Your task to perform on an android device: find photos in the google photos app Image 0: 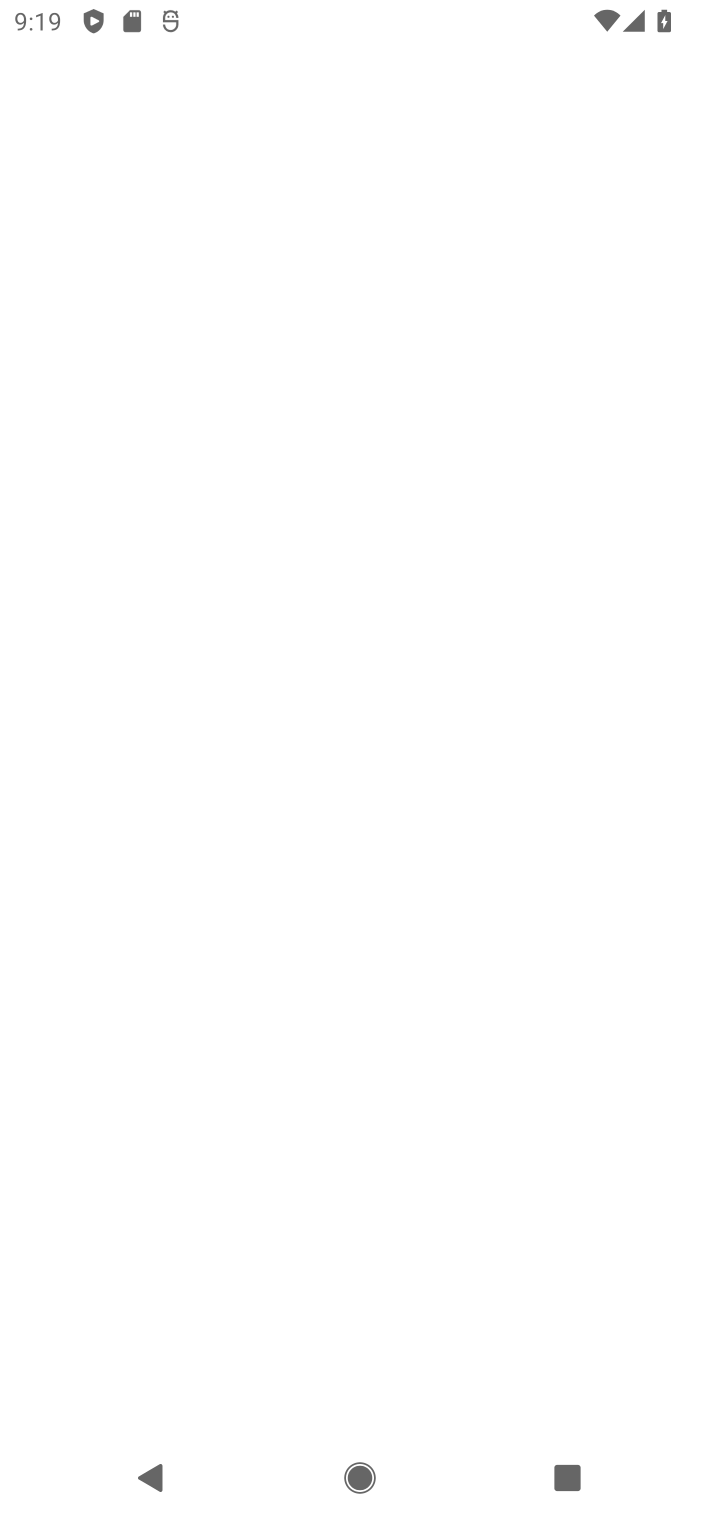
Step 0: press home button
Your task to perform on an android device: find photos in the google photos app Image 1: 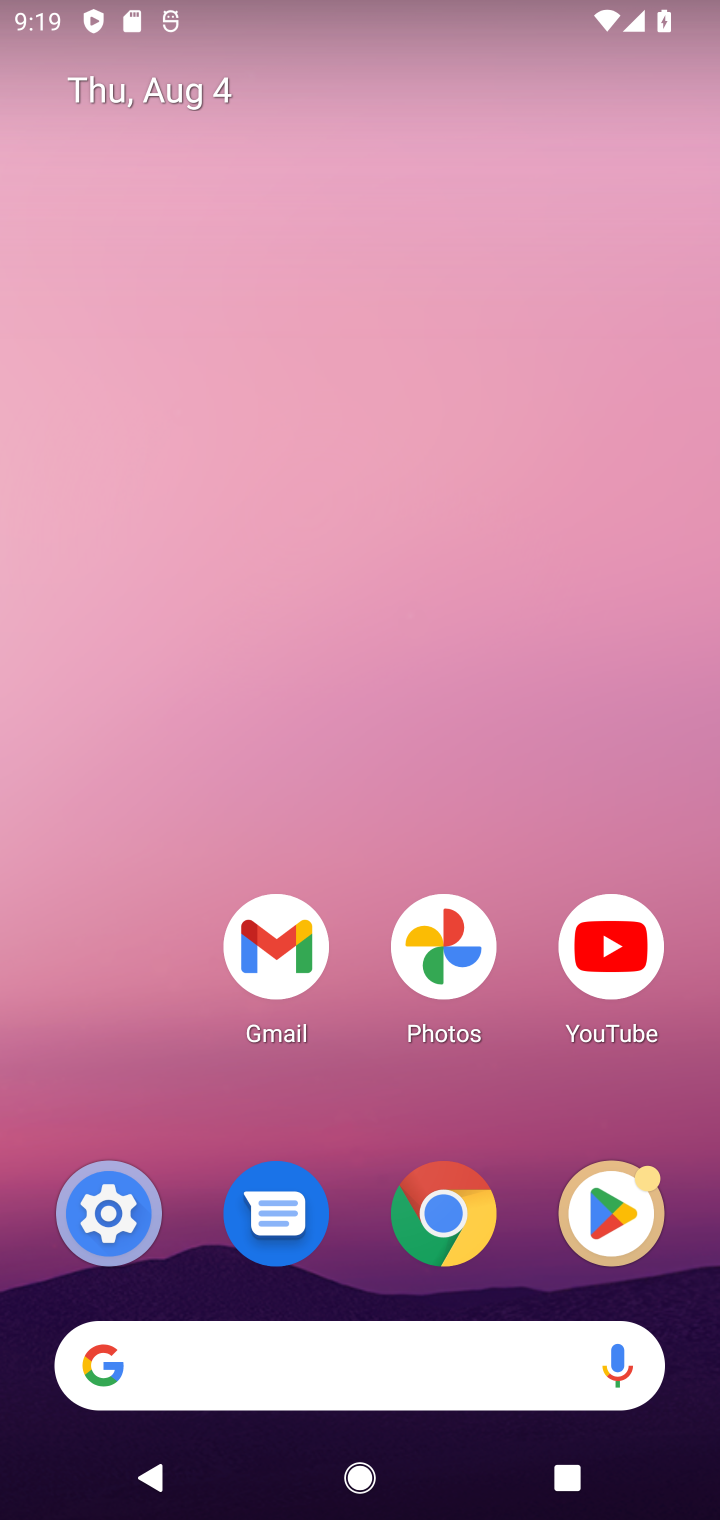
Step 1: click (444, 935)
Your task to perform on an android device: find photos in the google photos app Image 2: 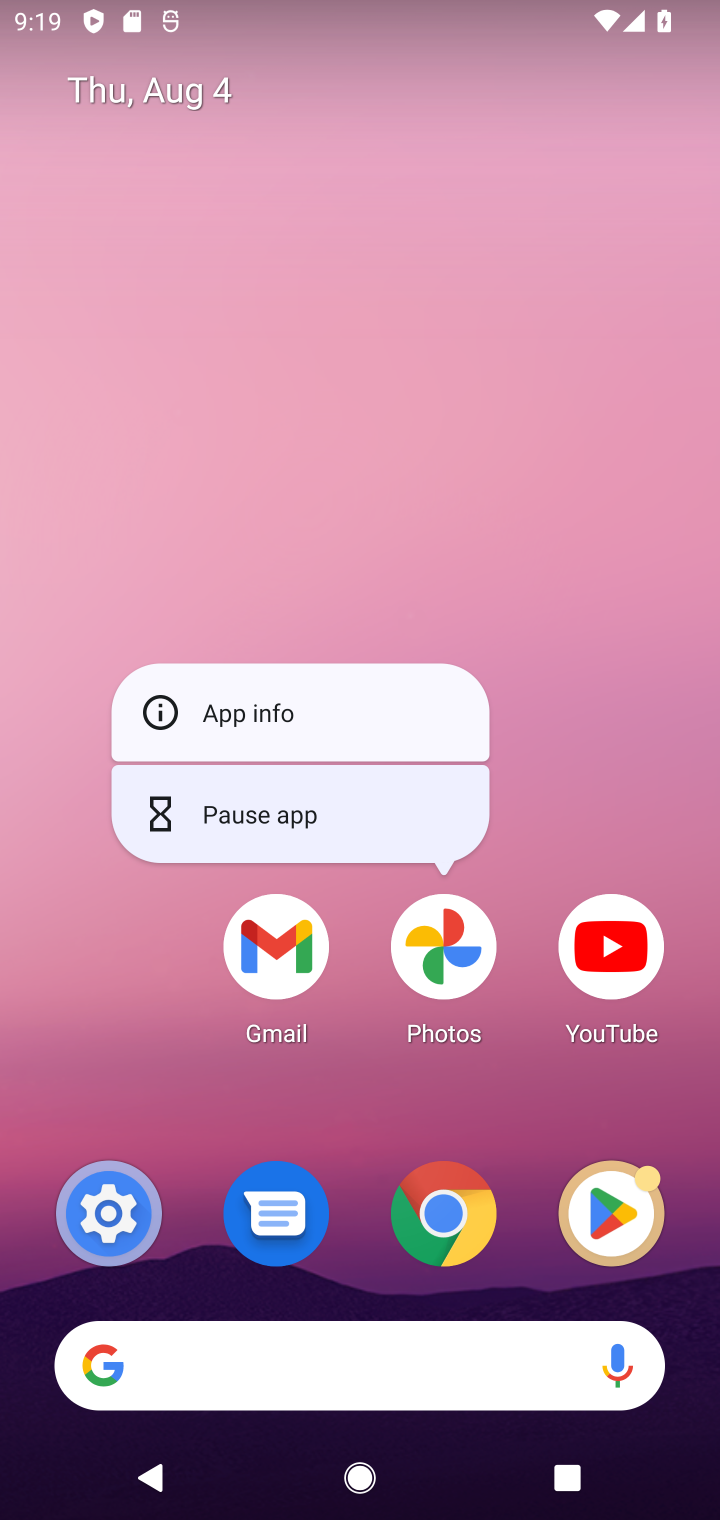
Step 2: click (449, 937)
Your task to perform on an android device: find photos in the google photos app Image 3: 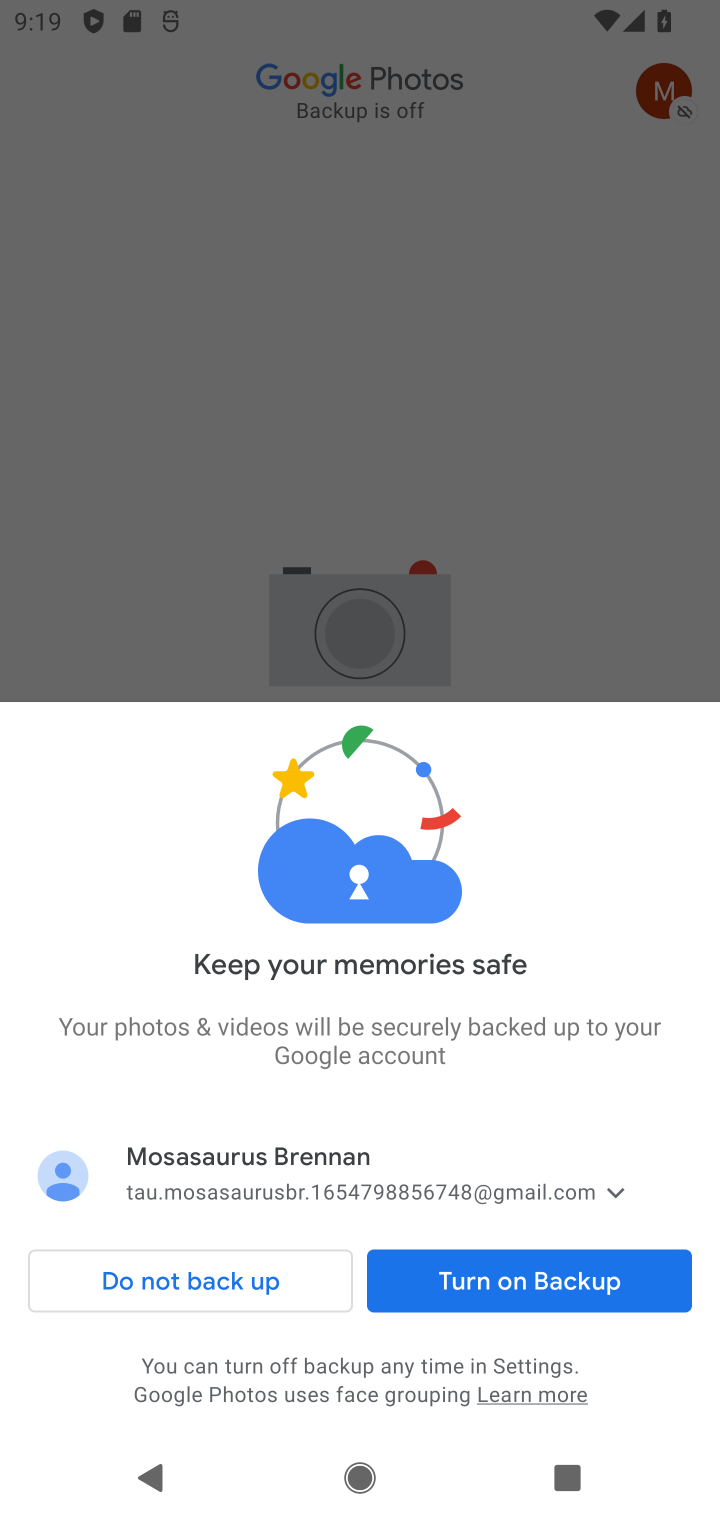
Step 3: click (518, 1291)
Your task to perform on an android device: find photos in the google photos app Image 4: 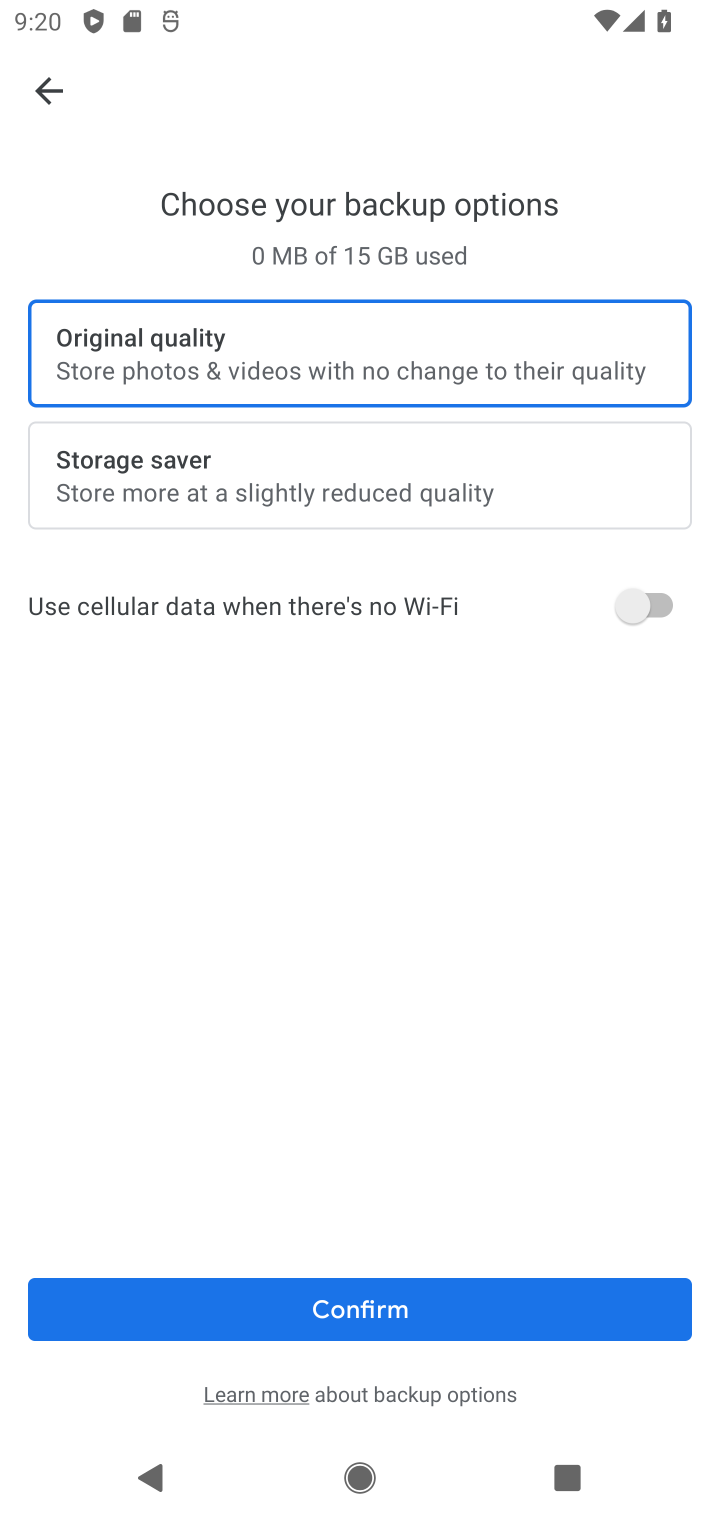
Step 4: click (365, 1320)
Your task to perform on an android device: find photos in the google photos app Image 5: 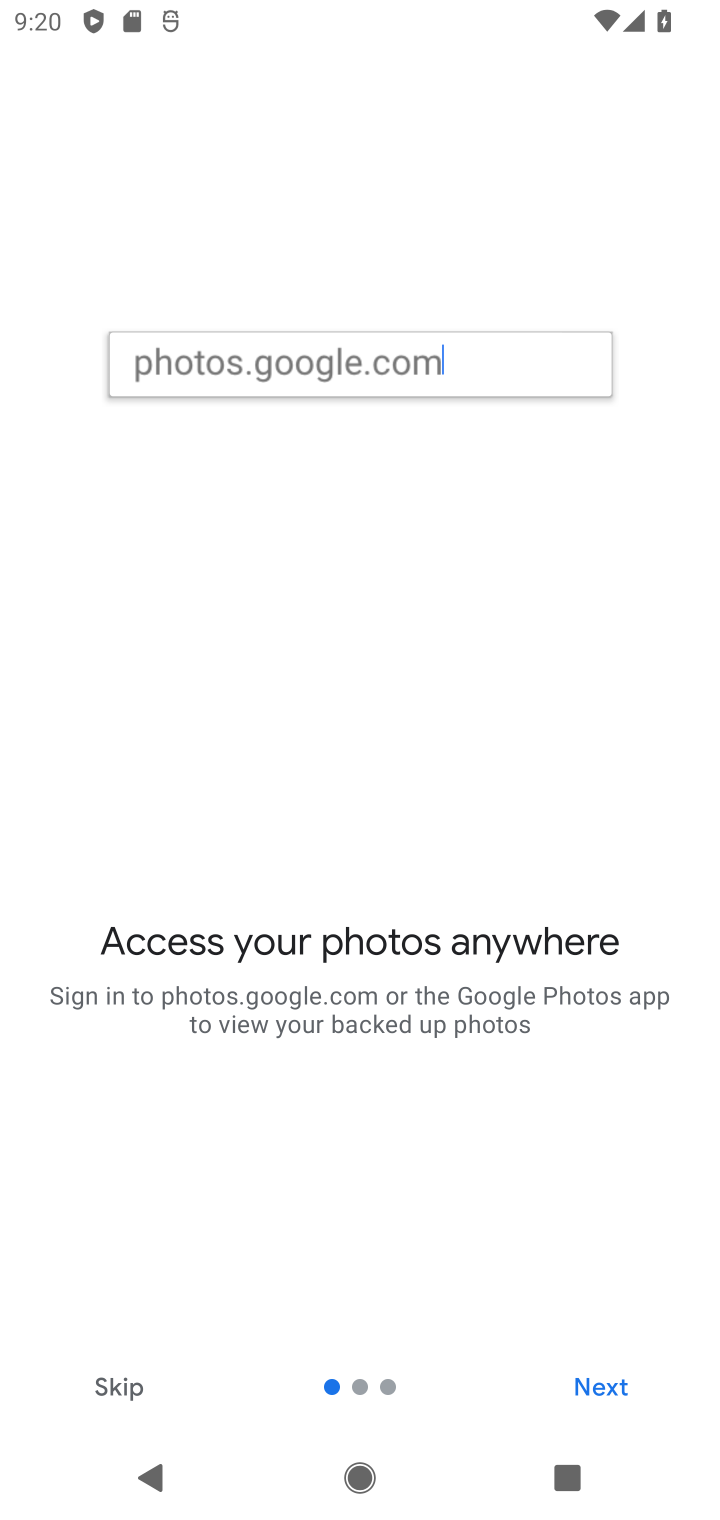
Step 5: click (114, 1382)
Your task to perform on an android device: find photos in the google photos app Image 6: 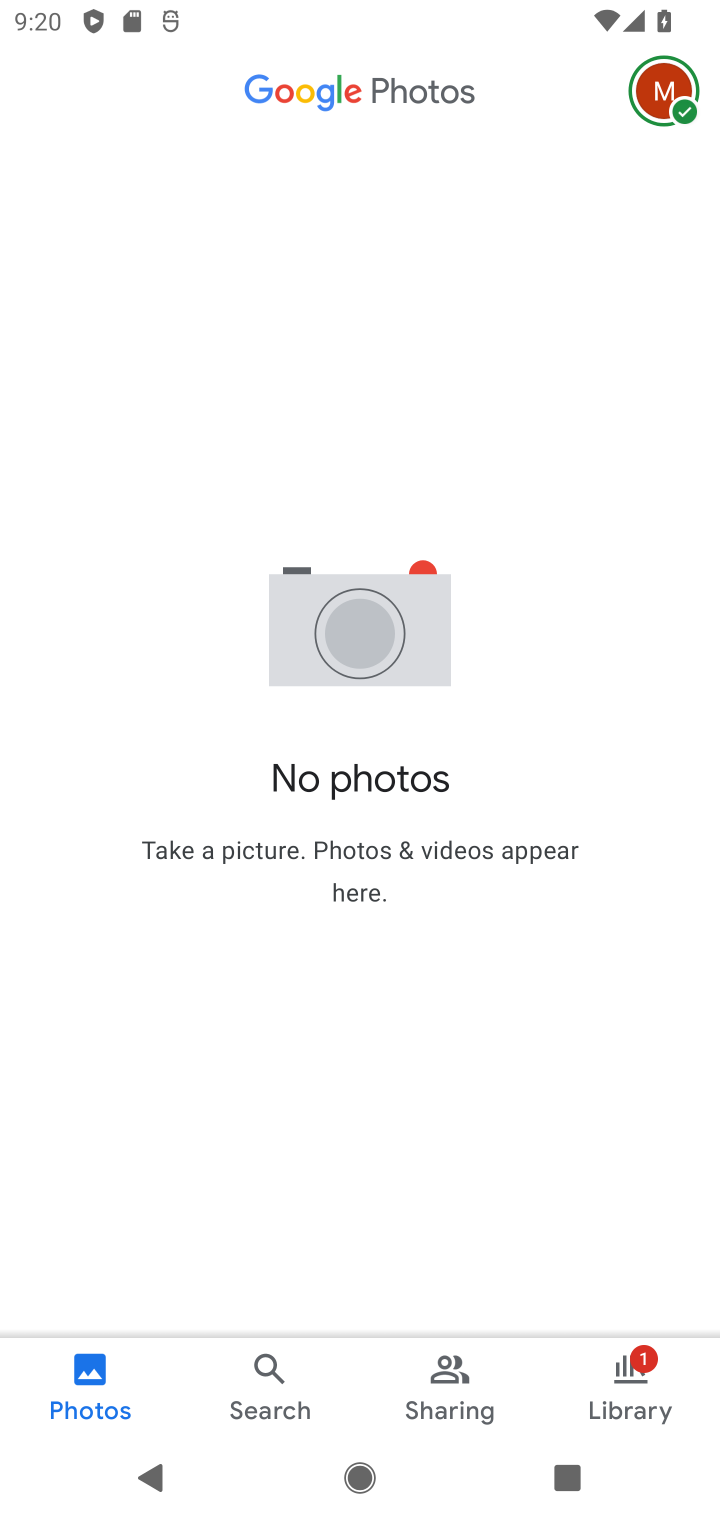
Step 6: click (121, 1372)
Your task to perform on an android device: find photos in the google photos app Image 7: 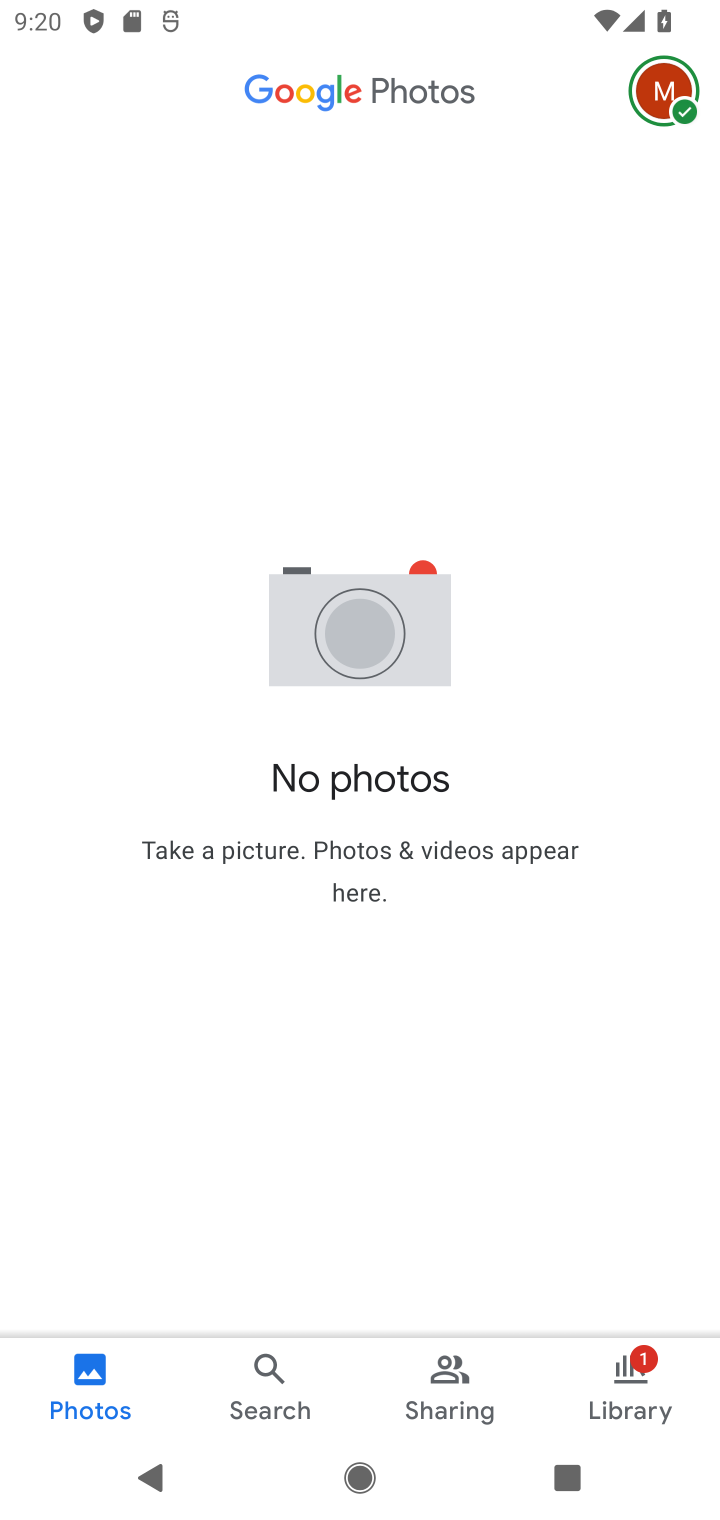
Step 7: task complete